Your task to perform on an android device: What's the weather? Image 0: 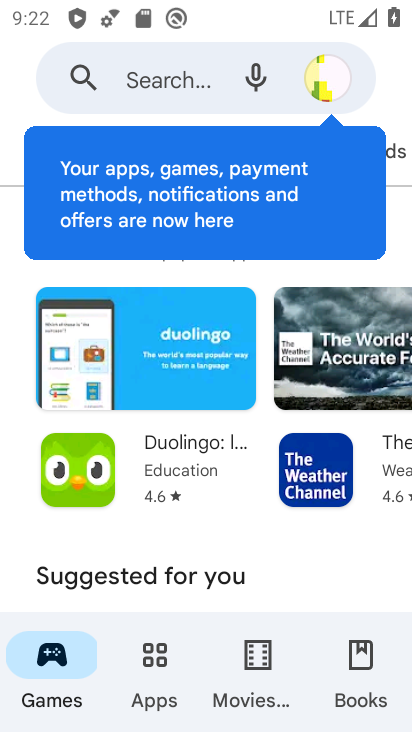
Step 0: press back button
Your task to perform on an android device: What's the weather? Image 1: 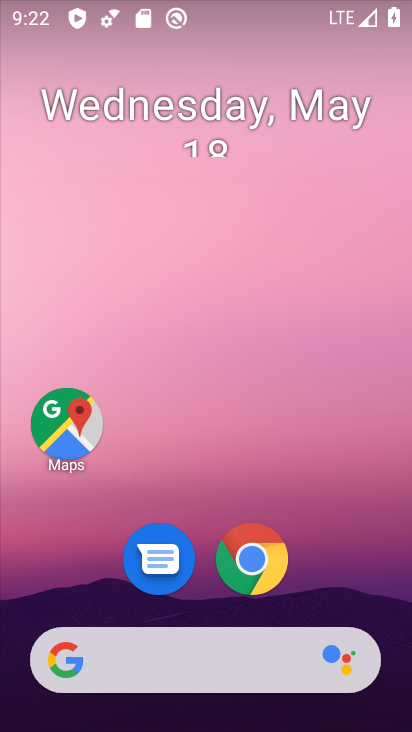
Step 1: drag from (362, 536) to (279, 2)
Your task to perform on an android device: What's the weather? Image 2: 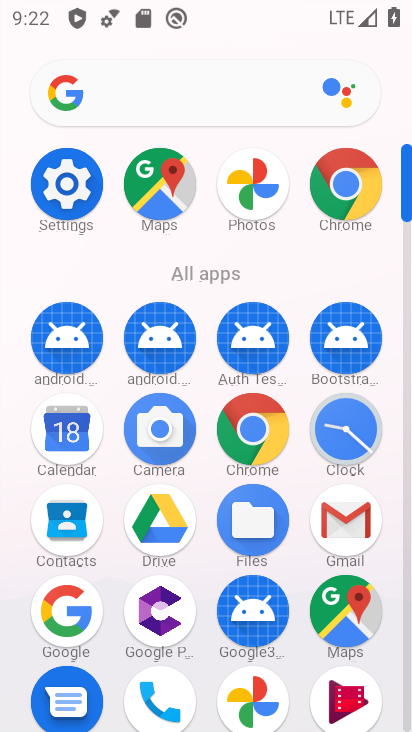
Step 2: drag from (3, 556) to (29, 320)
Your task to perform on an android device: What's the weather? Image 3: 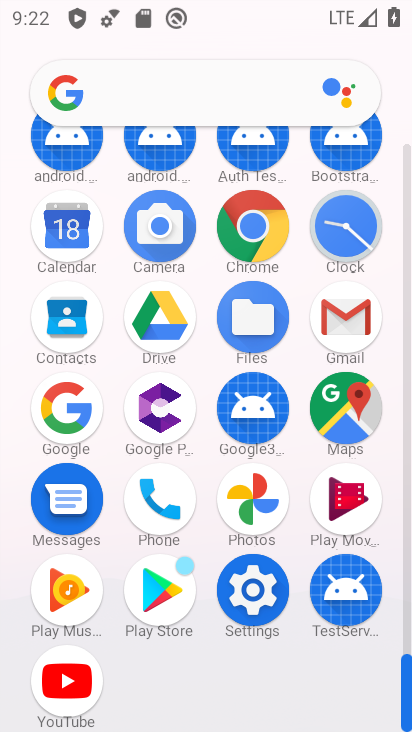
Step 3: click (261, 225)
Your task to perform on an android device: What's the weather? Image 4: 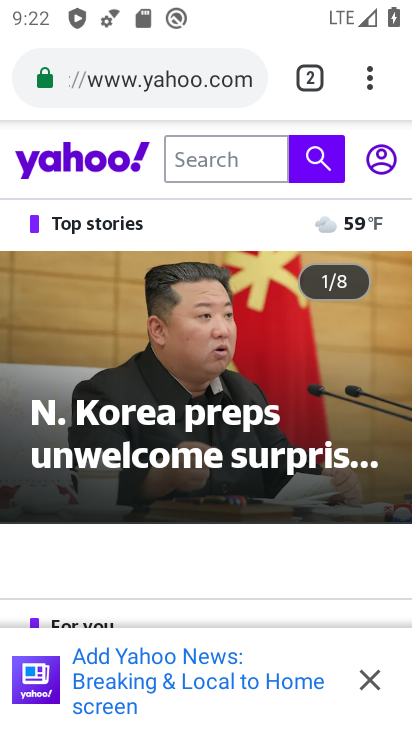
Step 4: click (166, 73)
Your task to perform on an android device: What's the weather? Image 5: 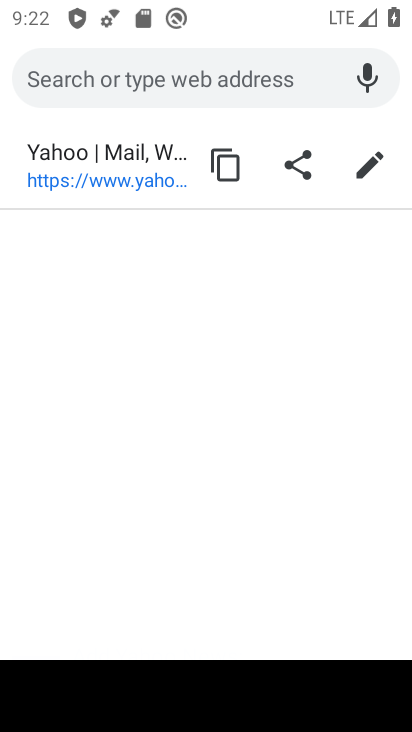
Step 5: type "What's the weather?"
Your task to perform on an android device: What's the weather? Image 6: 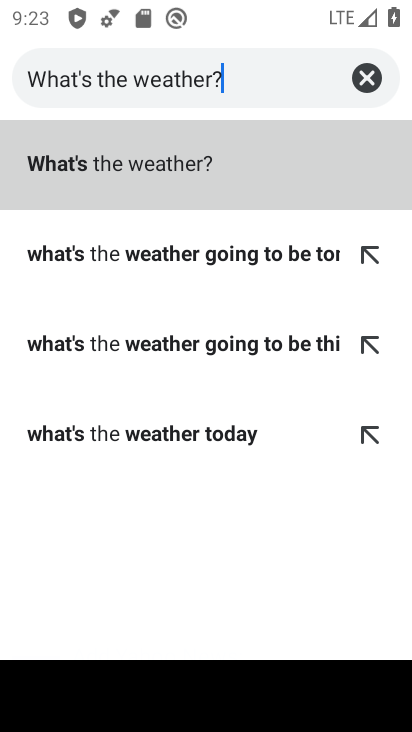
Step 6: type ""
Your task to perform on an android device: What's the weather? Image 7: 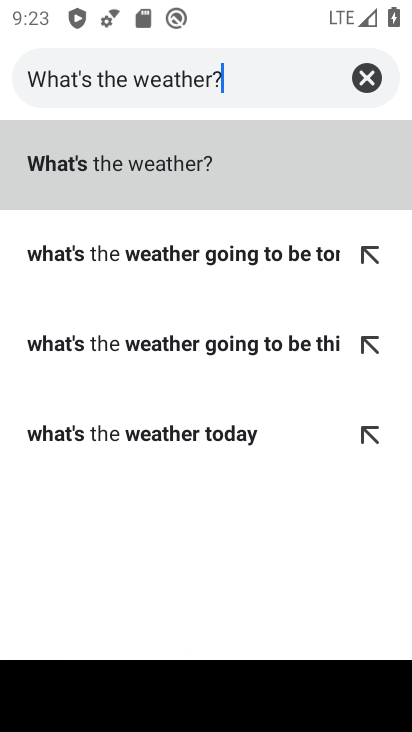
Step 7: click (155, 165)
Your task to perform on an android device: What's the weather? Image 8: 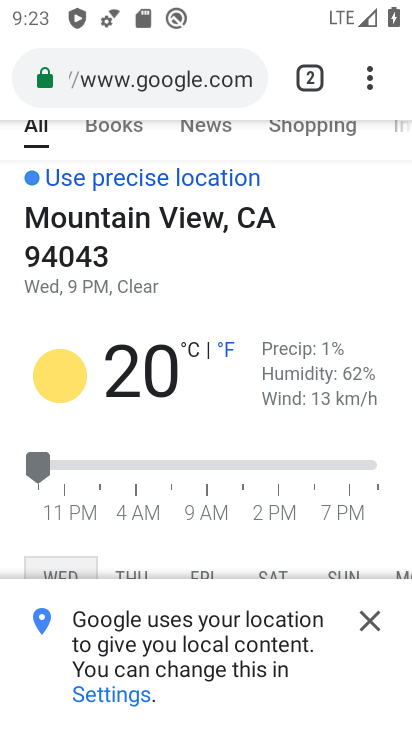
Step 8: task complete